Your task to perform on an android device: set the stopwatch Image 0: 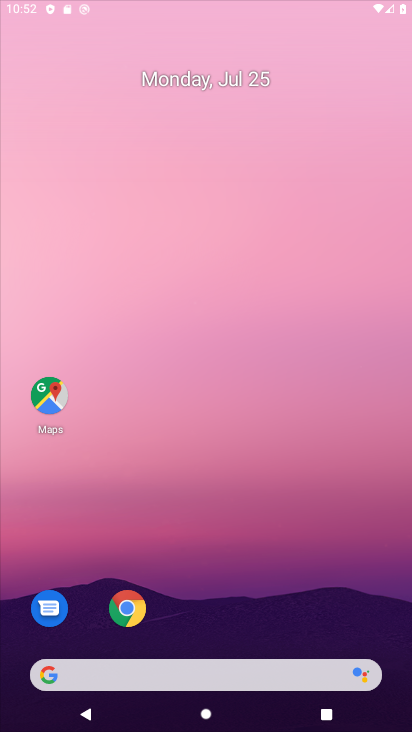
Step 0: drag from (178, 542) to (287, 8)
Your task to perform on an android device: set the stopwatch Image 1: 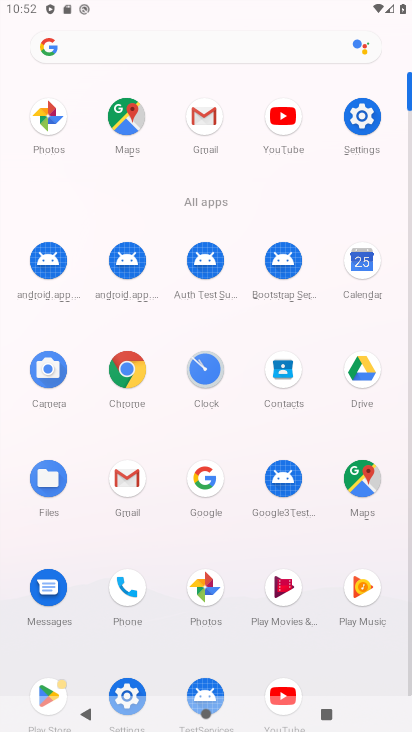
Step 1: click (210, 369)
Your task to perform on an android device: set the stopwatch Image 2: 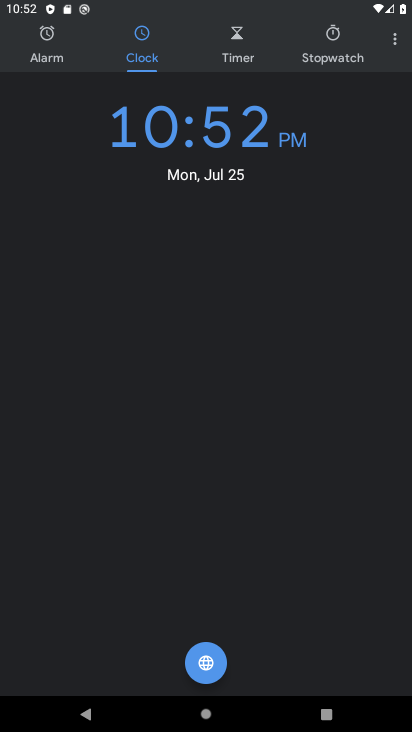
Step 2: click (337, 52)
Your task to perform on an android device: set the stopwatch Image 3: 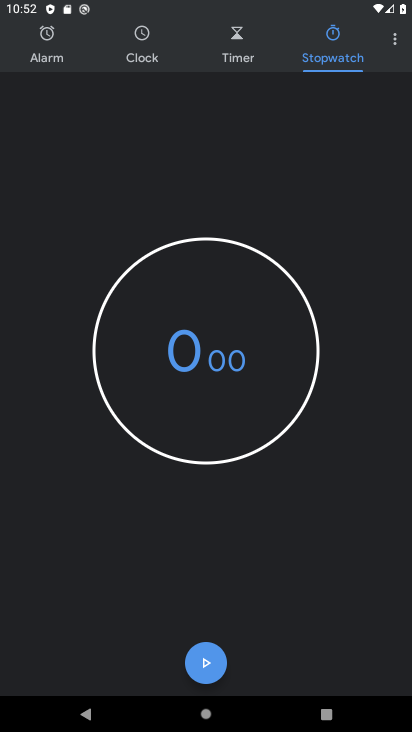
Step 3: click (214, 669)
Your task to perform on an android device: set the stopwatch Image 4: 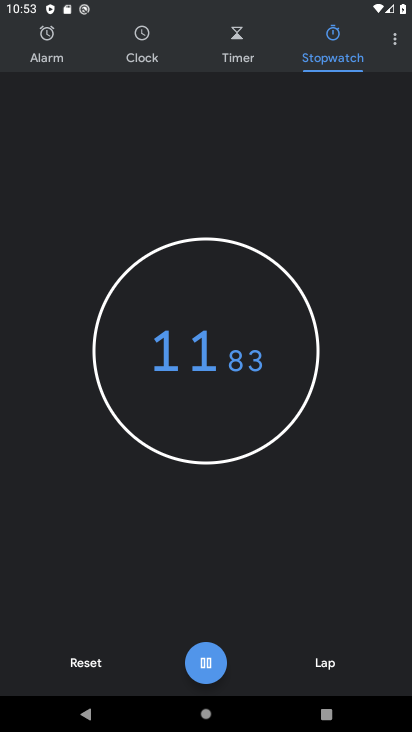
Step 4: task complete